Your task to perform on an android device: change the clock display to digital Image 0: 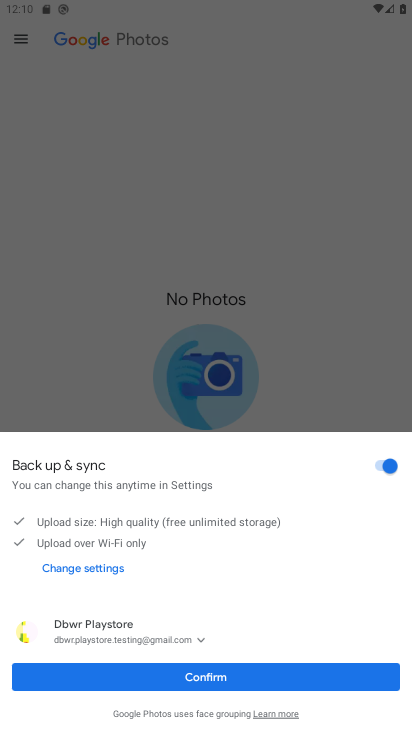
Step 0: press home button
Your task to perform on an android device: change the clock display to digital Image 1: 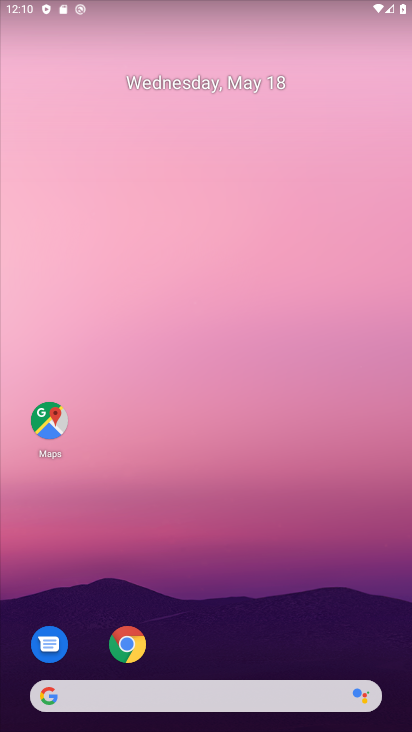
Step 1: drag from (246, 643) to (241, 98)
Your task to perform on an android device: change the clock display to digital Image 2: 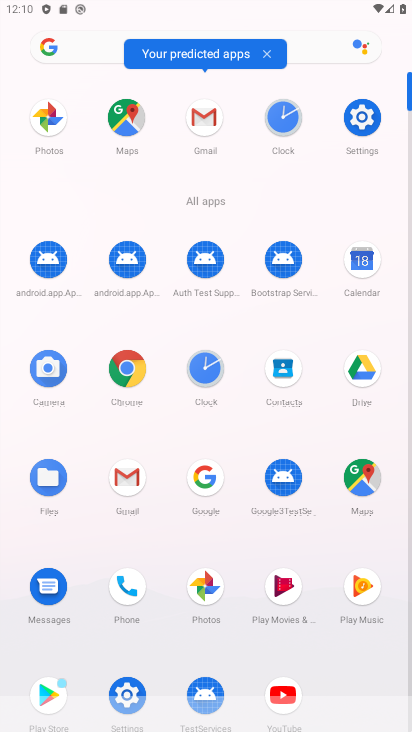
Step 2: click (275, 117)
Your task to perform on an android device: change the clock display to digital Image 3: 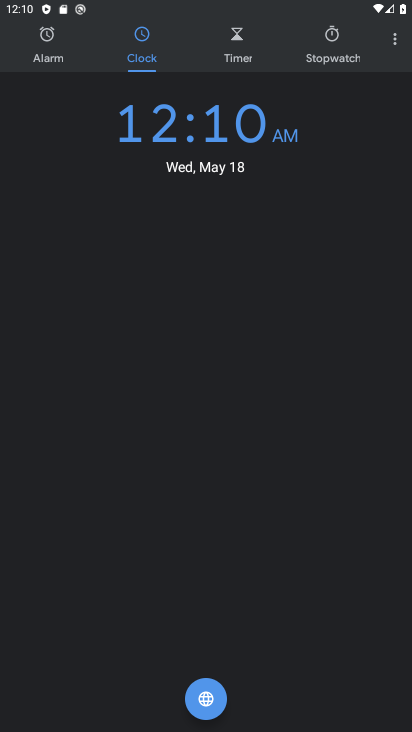
Step 3: click (385, 59)
Your task to perform on an android device: change the clock display to digital Image 4: 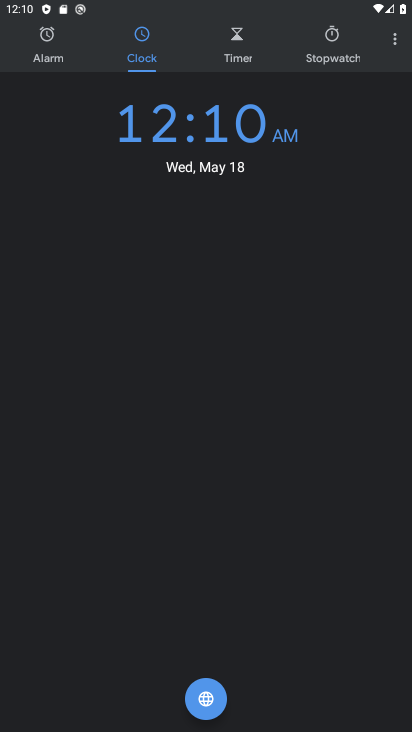
Step 4: click (391, 51)
Your task to perform on an android device: change the clock display to digital Image 5: 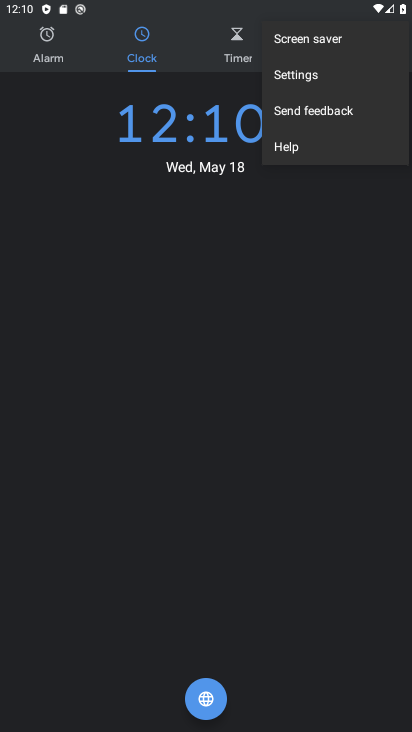
Step 5: click (353, 79)
Your task to perform on an android device: change the clock display to digital Image 6: 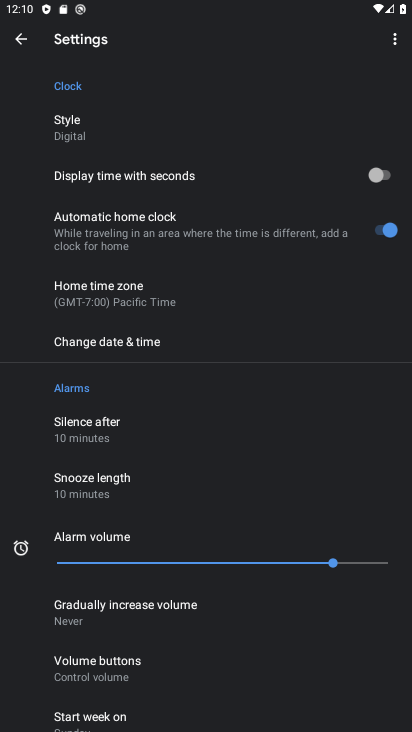
Step 6: click (254, 142)
Your task to perform on an android device: change the clock display to digital Image 7: 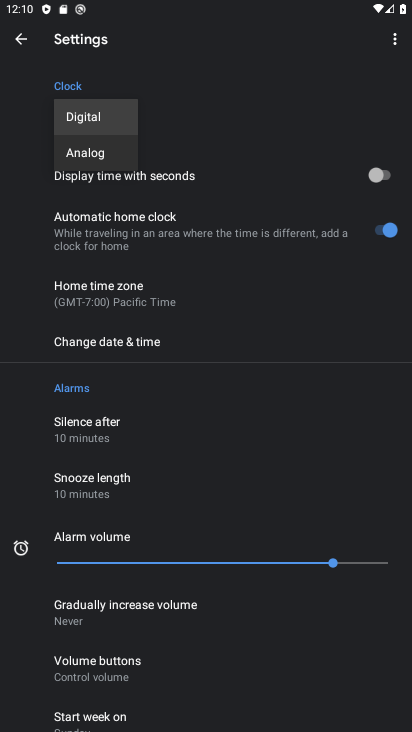
Step 7: task complete